Your task to perform on an android device: Add logitech g pro to the cart on ebay, then select checkout. Image 0: 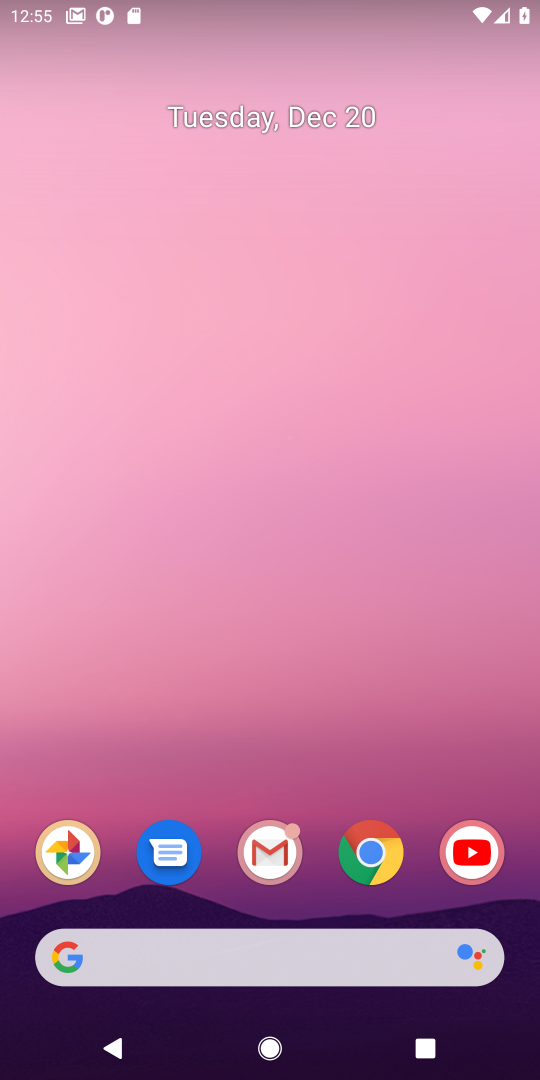
Step 0: click (381, 852)
Your task to perform on an android device: Add logitech g pro to the cart on ebay, then select checkout. Image 1: 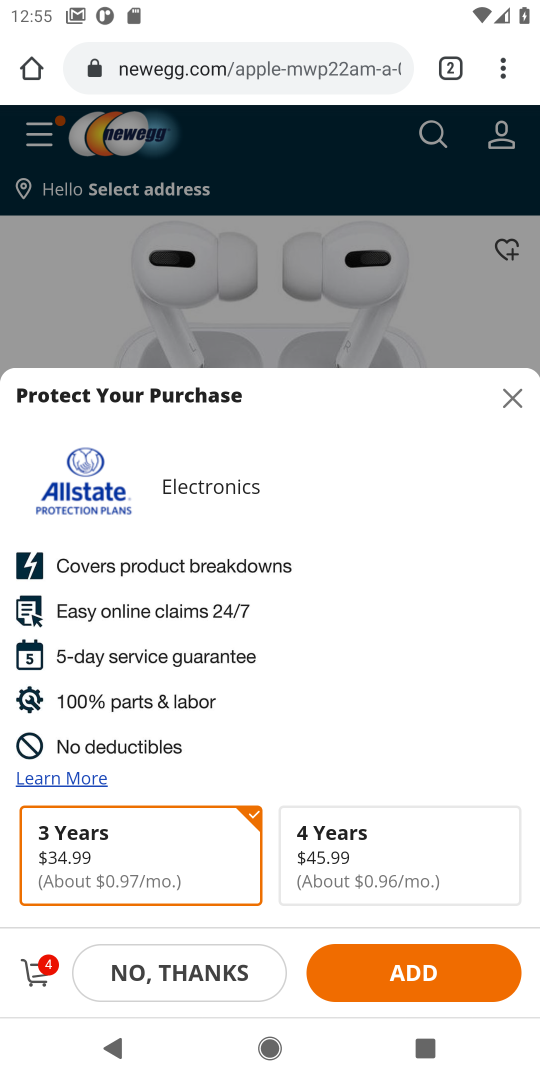
Step 1: click (266, 65)
Your task to perform on an android device: Add logitech g pro to the cart on ebay, then select checkout. Image 2: 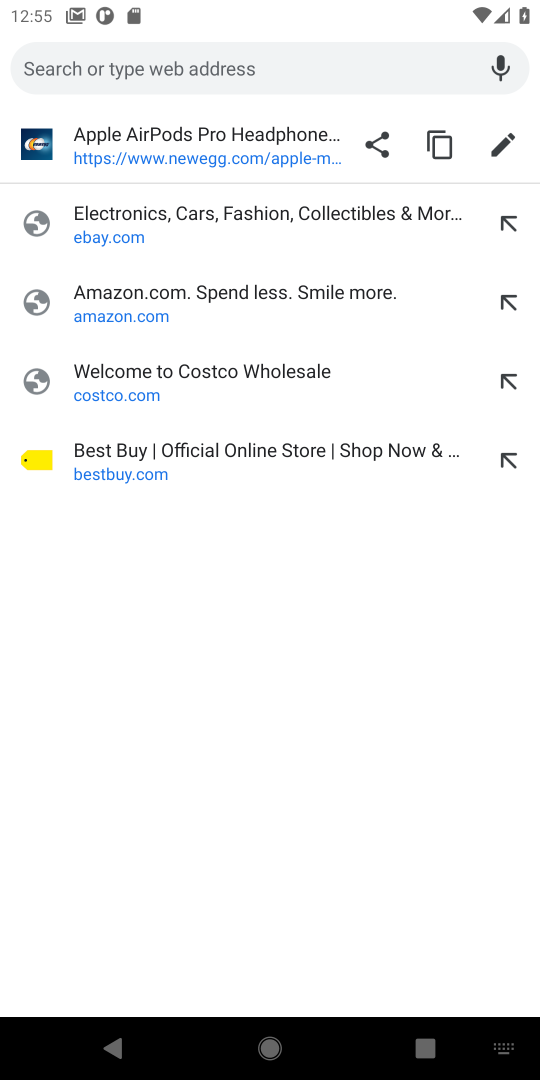
Step 2: click (105, 224)
Your task to perform on an android device: Add logitech g pro to the cart on ebay, then select checkout. Image 3: 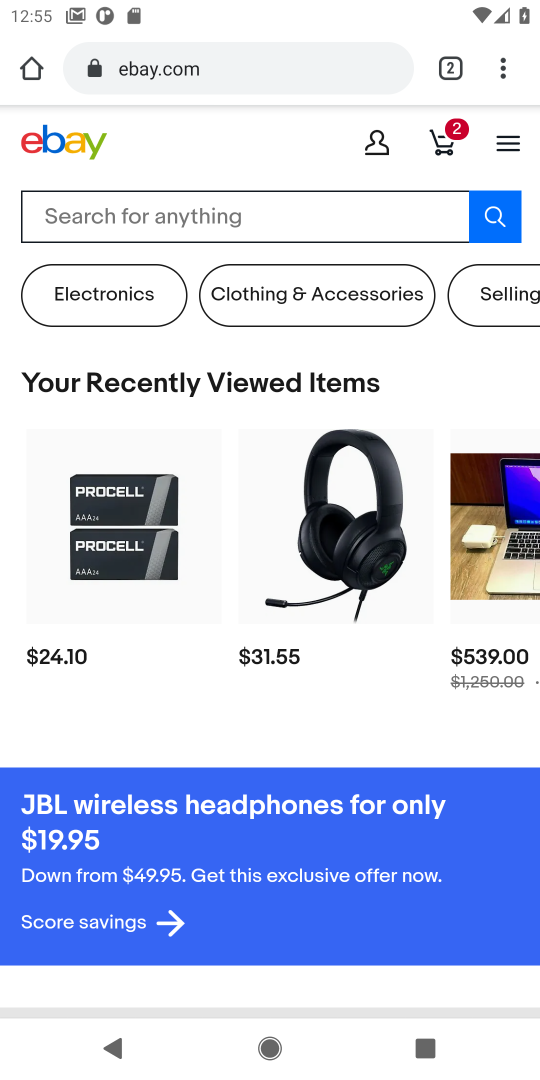
Step 3: click (160, 219)
Your task to perform on an android device: Add logitech g pro to the cart on ebay, then select checkout. Image 4: 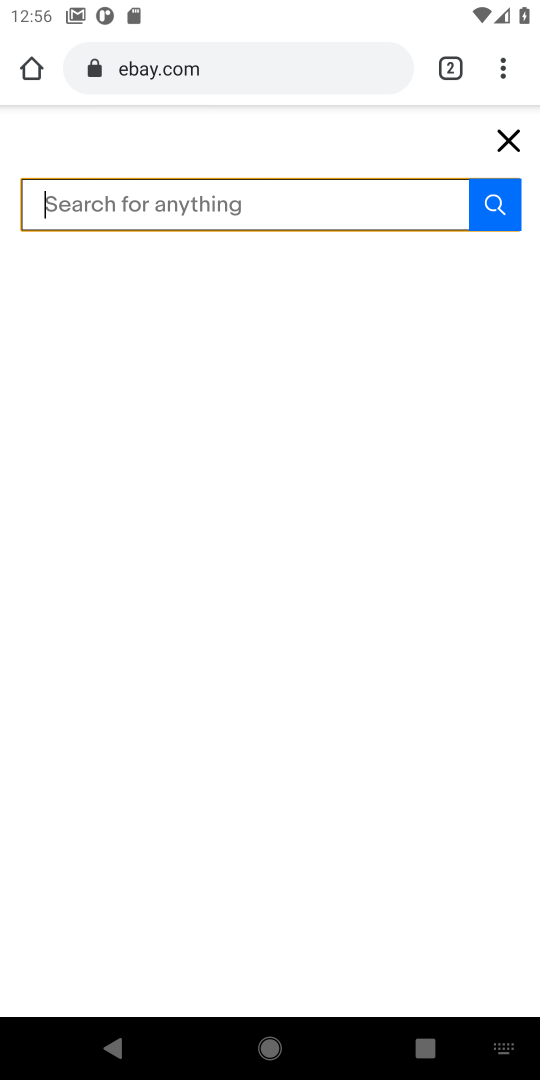
Step 4: type " logitech g pro "
Your task to perform on an android device: Add logitech g pro to the cart on ebay, then select checkout. Image 5: 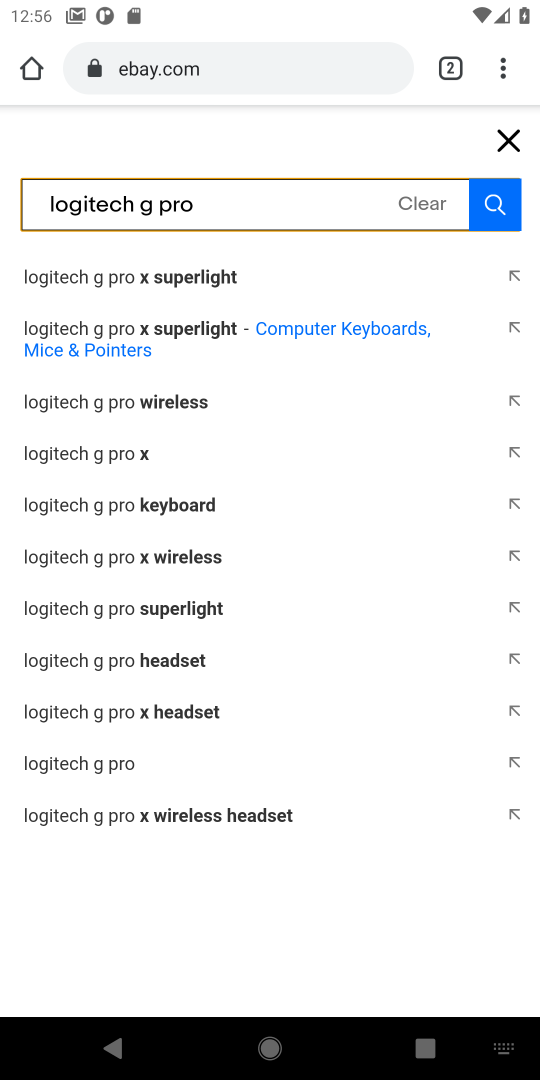
Step 5: click (74, 771)
Your task to perform on an android device: Add logitech g pro to the cart on ebay, then select checkout. Image 6: 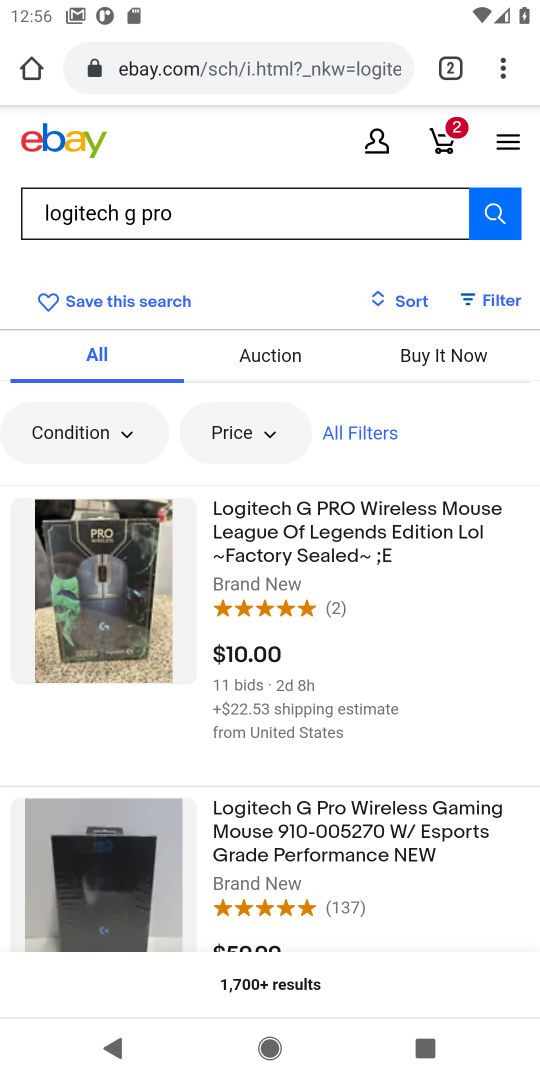
Step 6: drag from (235, 731) to (258, 492)
Your task to perform on an android device: Add logitech g pro to the cart on ebay, then select checkout. Image 7: 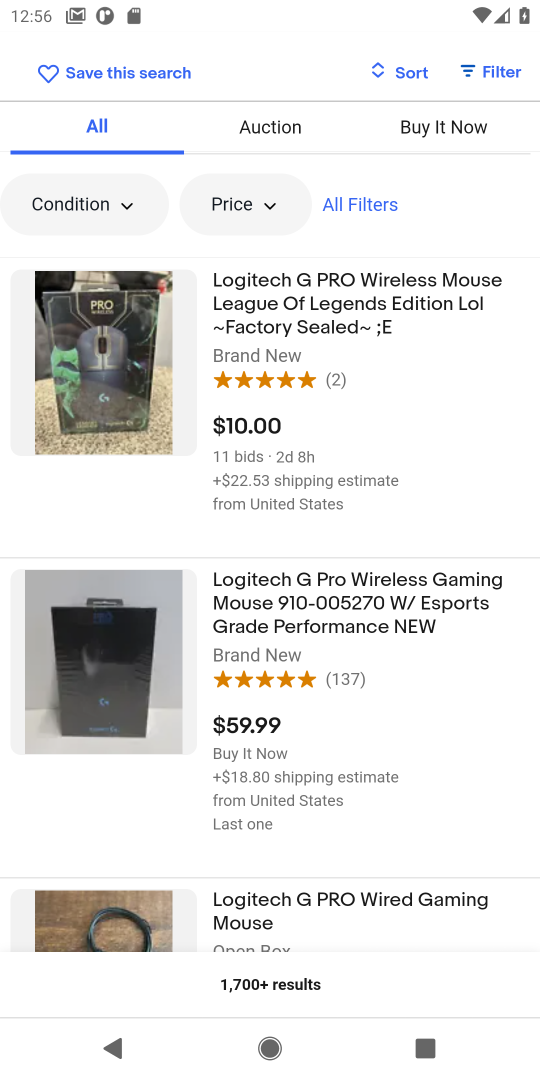
Step 7: click (242, 625)
Your task to perform on an android device: Add logitech g pro to the cart on ebay, then select checkout. Image 8: 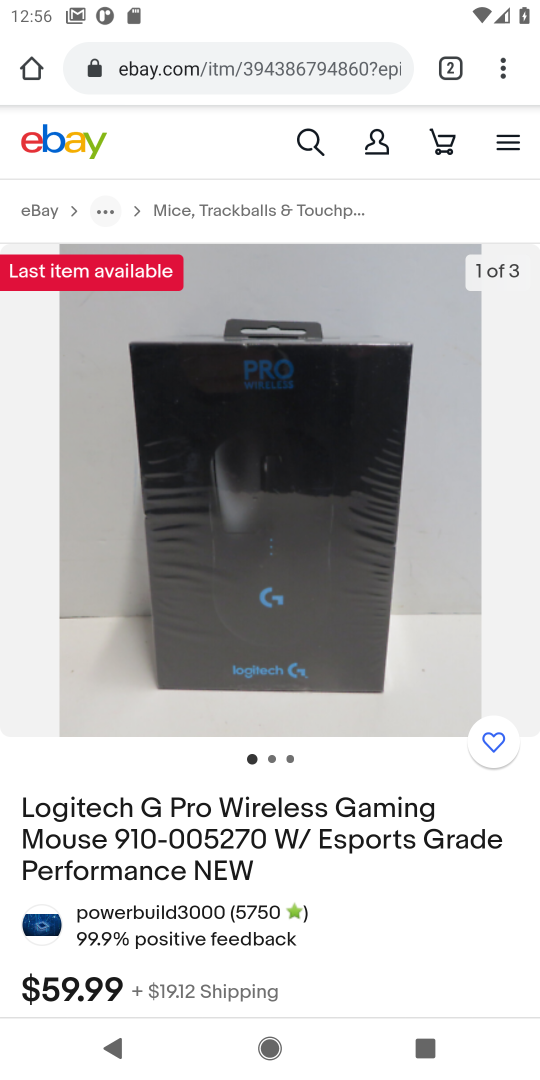
Step 8: drag from (213, 834) to (229, 442)
Your task to perform on an android device: Add logitech g pro to the cart on ebay, then select checkout. Image 9: 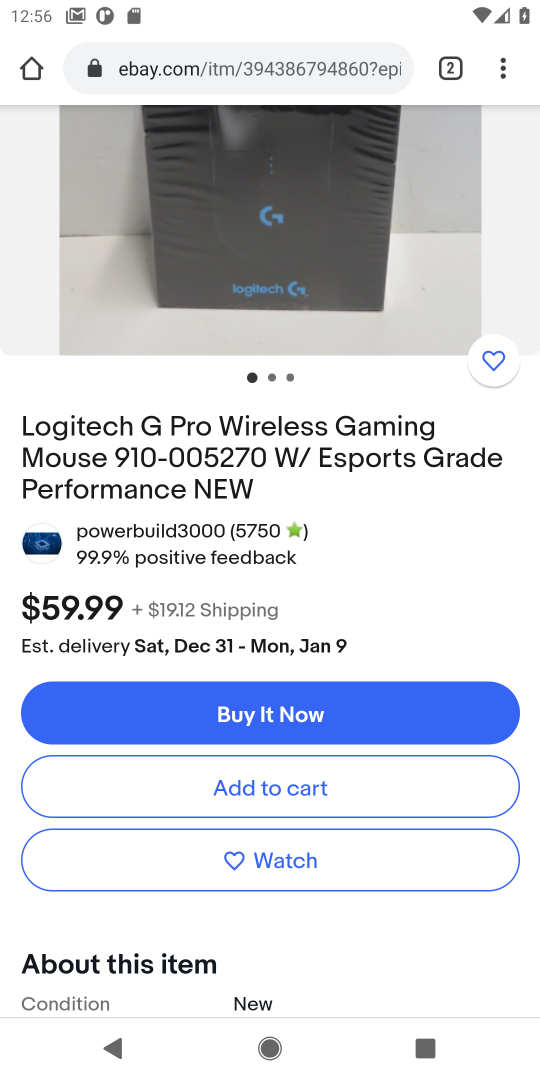
Step 9: click (240, 780)
Your task to perform on an android device: Add logitech g pro to the cart on ebay, then select checkout. Image 10: 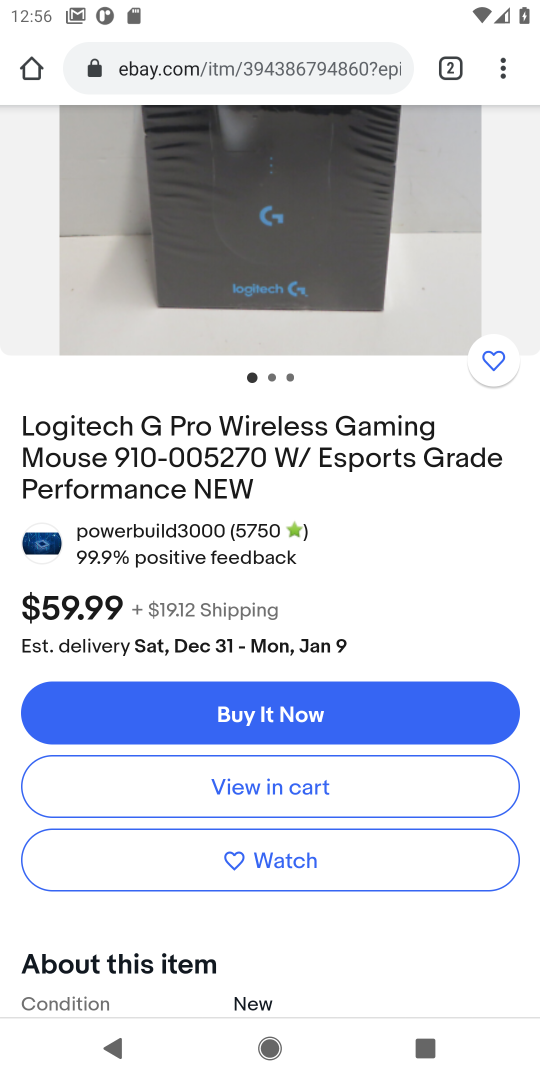
Step 10: click (242, 783)
Your task to perform on an android device: Add logitech g pro to the cart on ebay, then select checkout. Image 11: 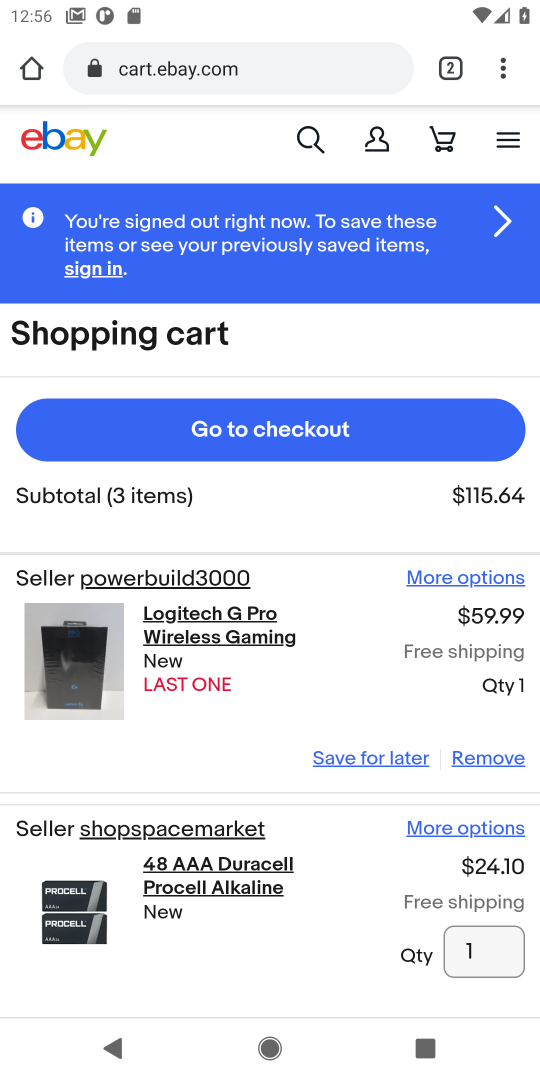
Step 11: click (228, 440)
Your task to perform on an android device: Add logitech g pro to the cart on ebay, then select checkout. Image 12: 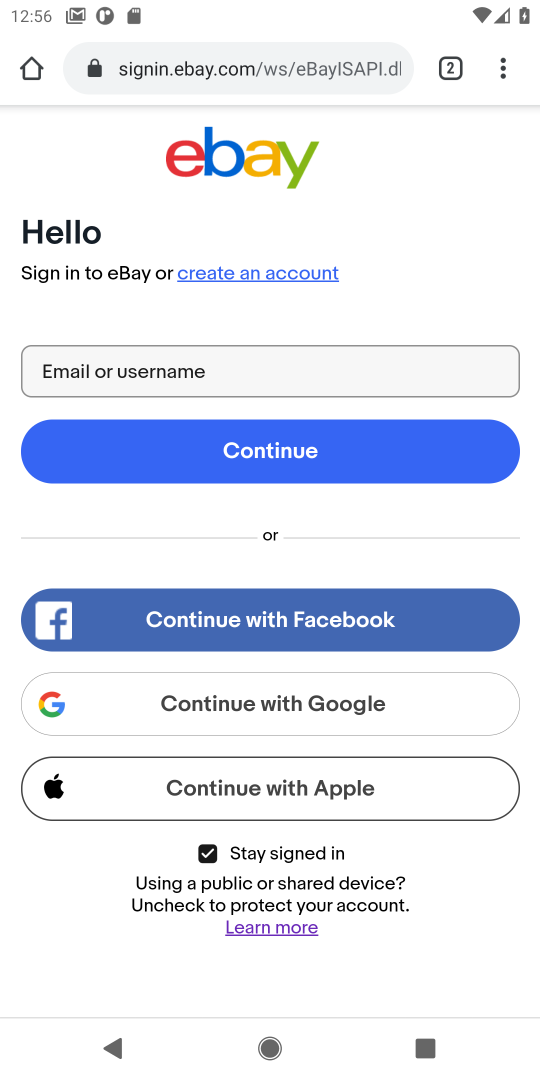
Step 12: task complete